Your task to perform on an android device: Open display settings Image 0: 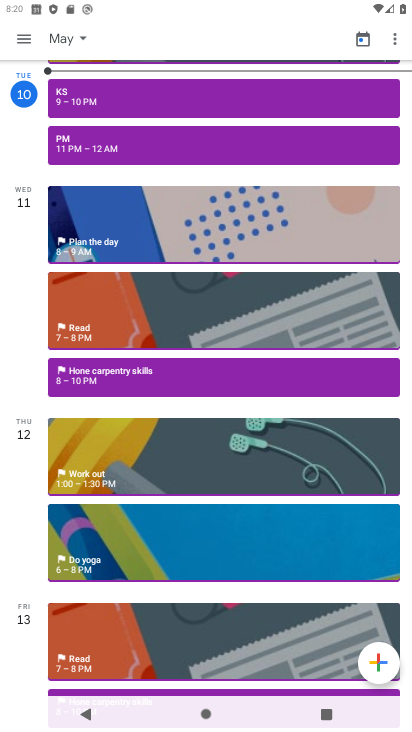
Step 0: press home button
Your task to perform on an android device: Open display settings Image 1: 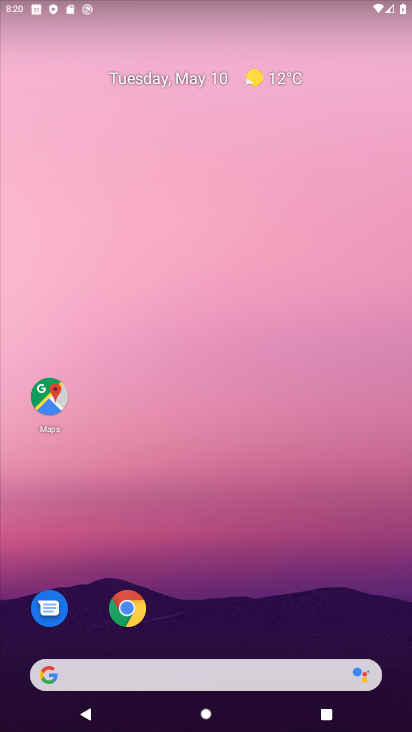
Step 1: drag from (186, 671) to (212, 60)
Your task to perform on an android device: Open display settings Image 2: 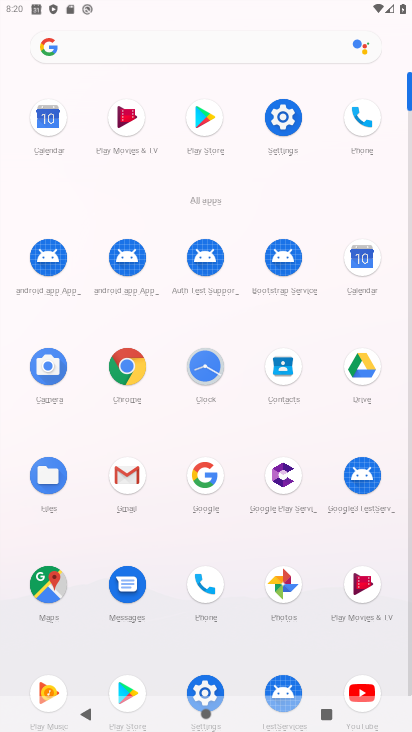
Step 2: click (302, 119)
Your task to perform on an android device: Open display settings Image 3: 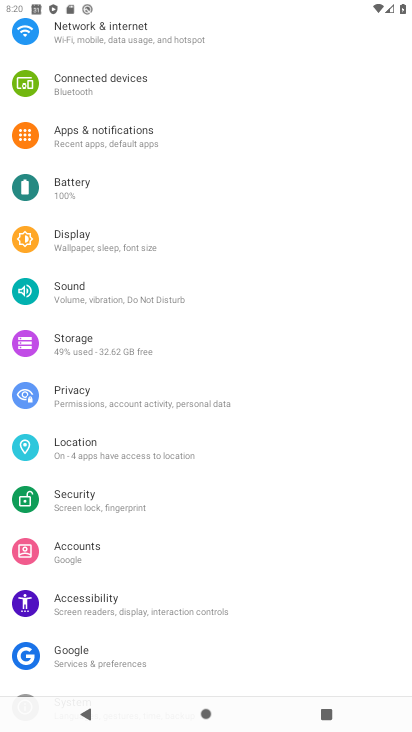
Step 3: click (87, 235)
Your task to perform on an android device: Open display settings Image 4: 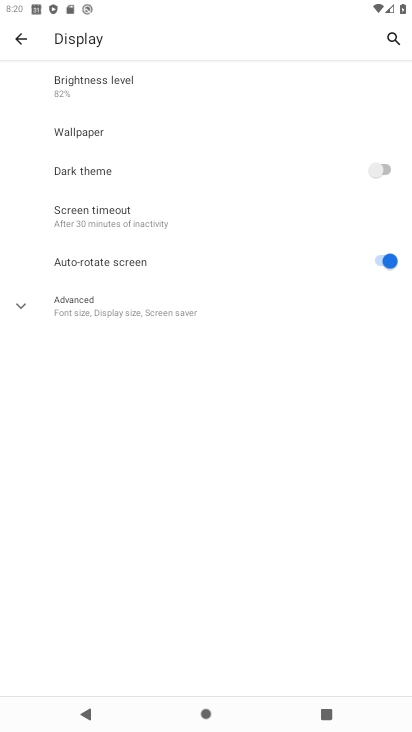
Step 4: task complete